Your task to perform on an android device: change the upload size in google photos Image 0: 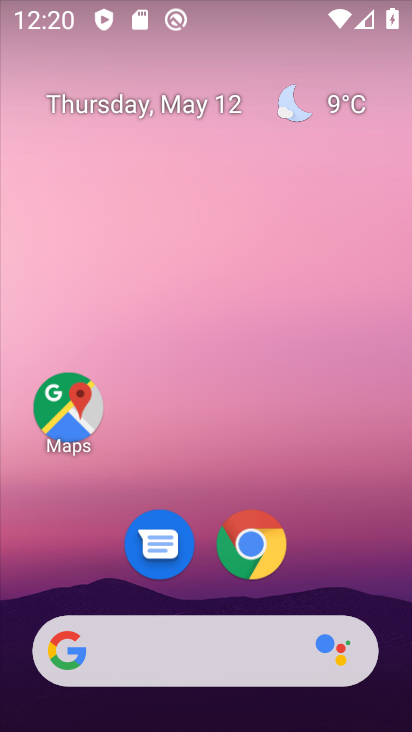
Step 0: drag from (182, 679) to (188, 134)
Your task to perform on an android device: change the upload size in google photos Image 1: 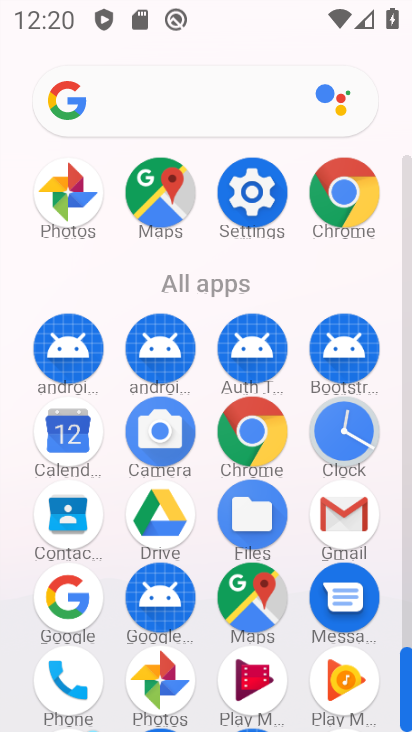
Step 1: click (69, 198)
Your task to perform on an android device: change the upload size in google photos Image 2: 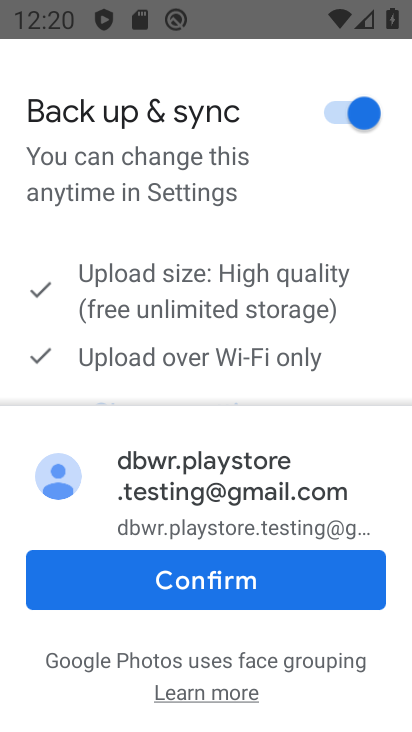
Step 2: click (200, 578)
Your task to perform on an android device: change the upload size in google photos Image 3: 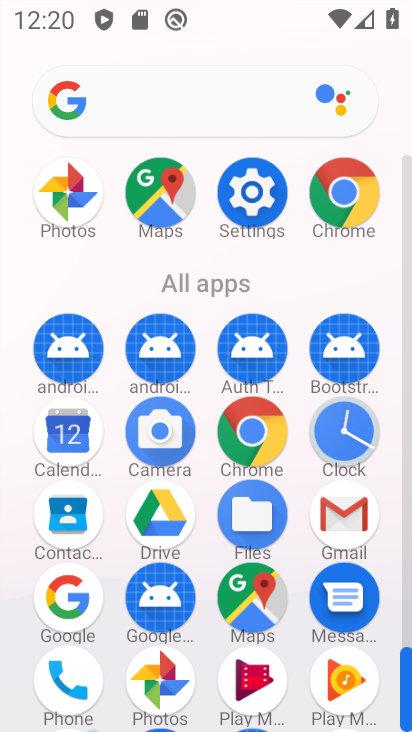
Step 3: click (157, 677)
Your task to perform on an android device: change the upload size in google photos Image 4: 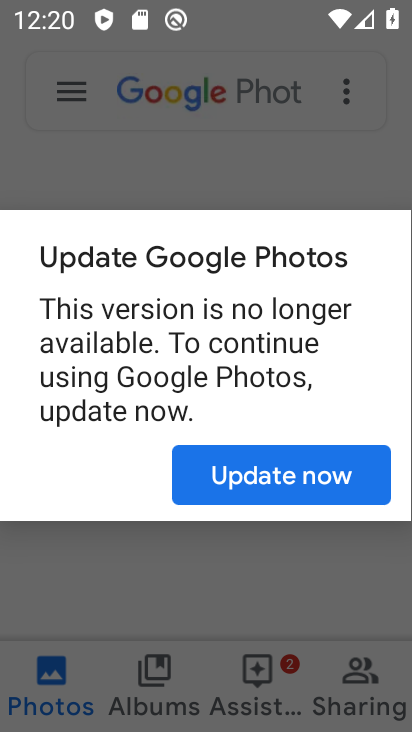
Step 4: task complete